Your task to perform on an android device: add a contact Image 0: 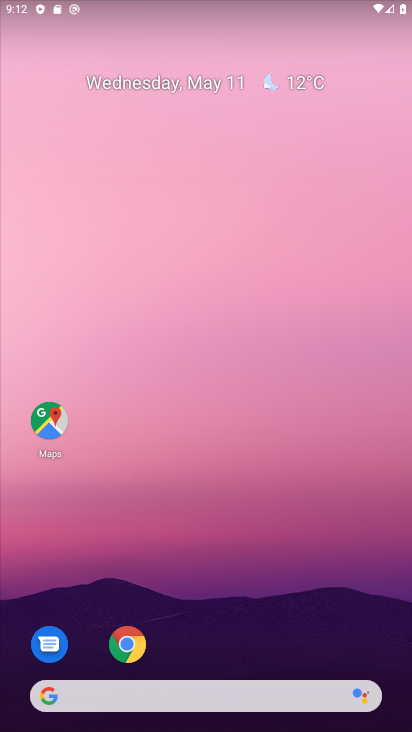
Step 0: drag from (234, 643) to (221, 298)
Your task to perform on an android device: add a contact Image 1: 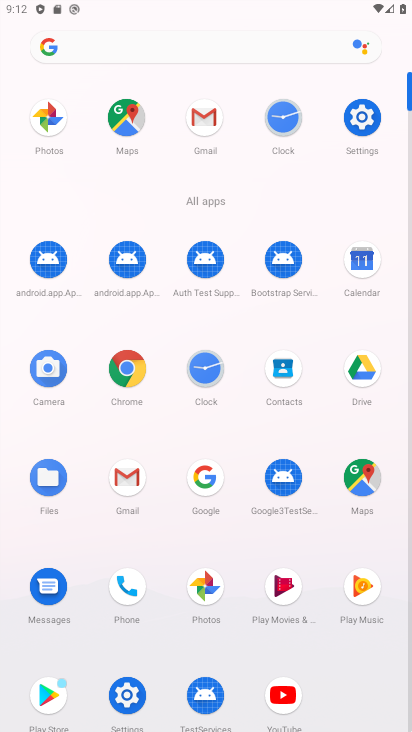
Step 1: click (349, 140)
Your task to perform on an android device: add a contact Image 2: 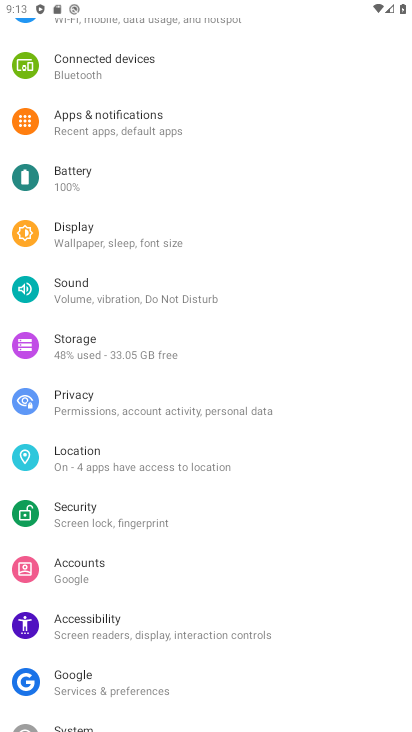
Step 2: press home button
Your task to perform on an android device: add a contact Image 3: 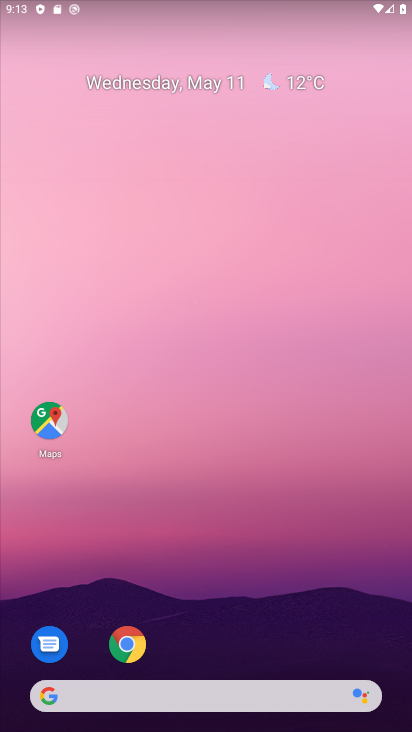
Step 3: drag from (302, 613) to (331, 168)
Your task to perform on an android device: add a contact Image 4: 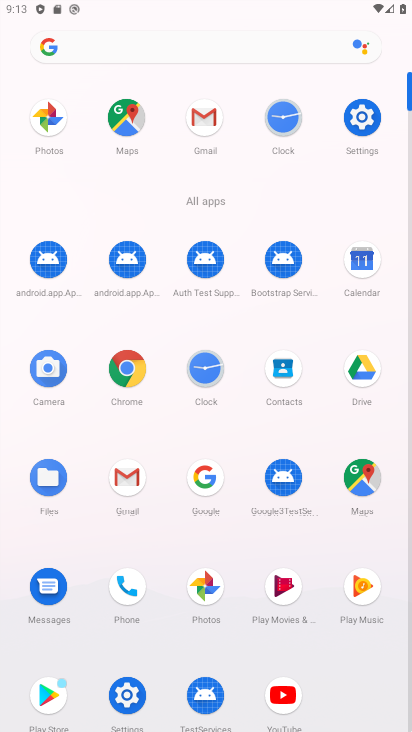
Step 4: click (369, 135)
Your task to perform on an android device: add a contact Image 5: 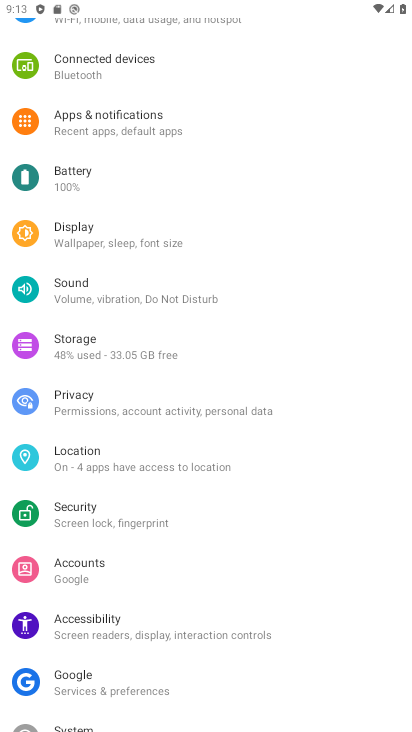
Step 5: press home button
Your task to perform on an android device: add a contact Image 6: 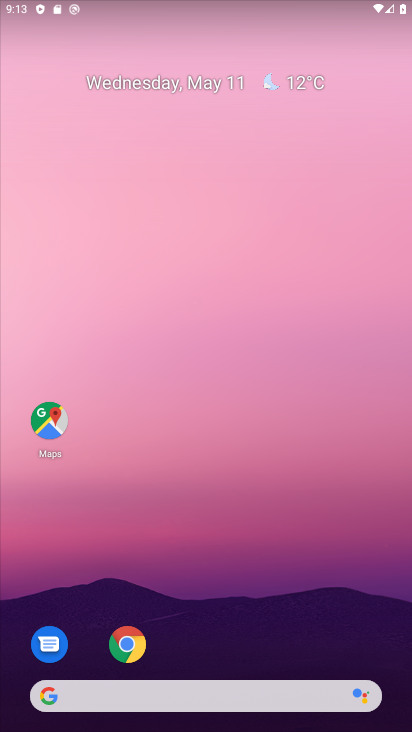
Step 6: drag from (338, 593) to (340, 0)
Your task to perform on an android device: add a contact Image 7: 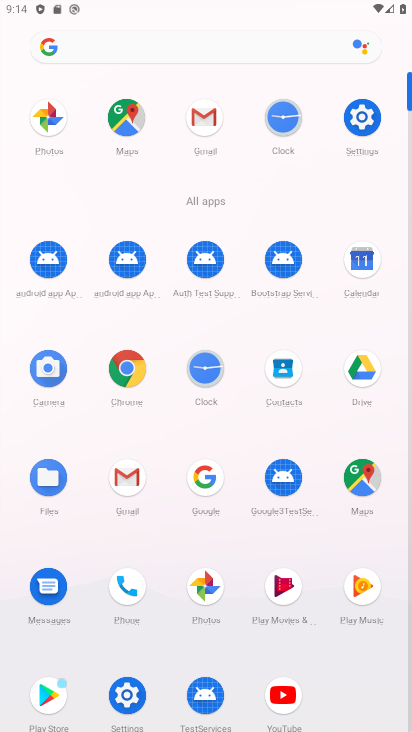
Step 7: click (272, 380)
Your task to perform on an android device: add a contact Image 8: 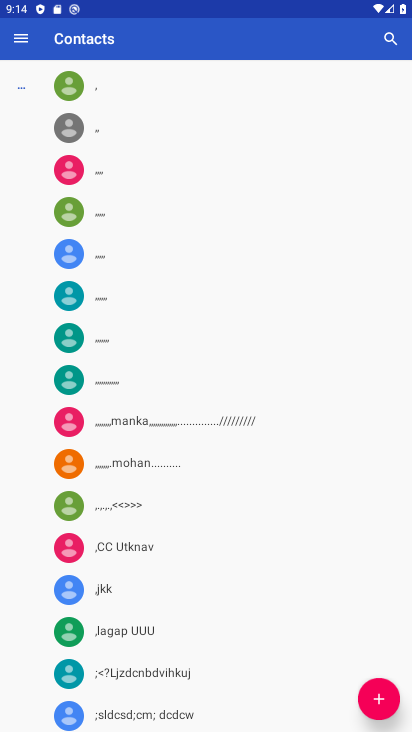
Step 8: click (378, 686)
Your task to perform on an android device: add a contact Image 9: 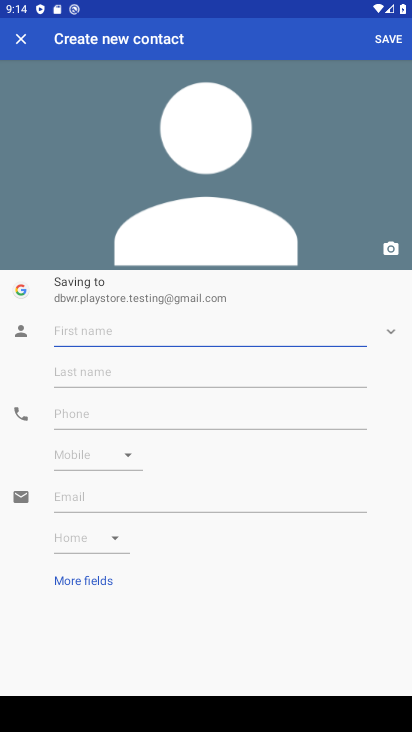
Step 9: click (196, 326)
Your task to perform on an android device: add a contact Image 10: 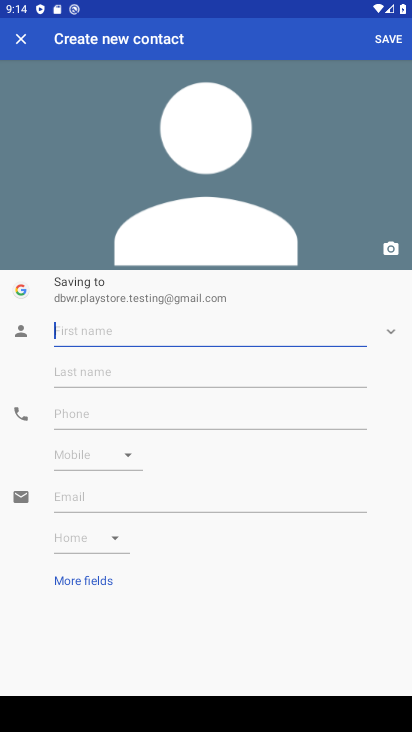
Step 10: type "aweqw"
Your task to perform on an android device: add a contact Image 11: 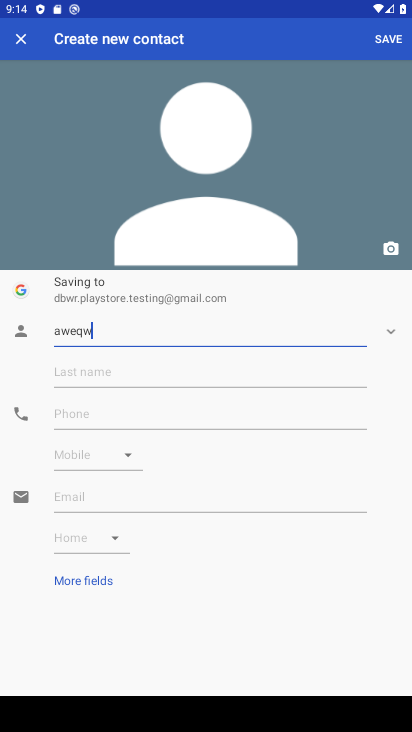
Step 11: click (263, 365)
Your task to perform on an android device: add a contact Image 12: 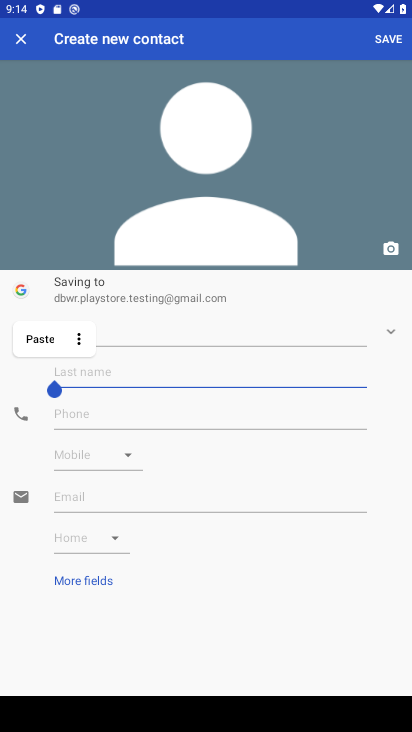
Step 12: click (227, 372)
Your task to perform on an android device: add a contact Image 13: 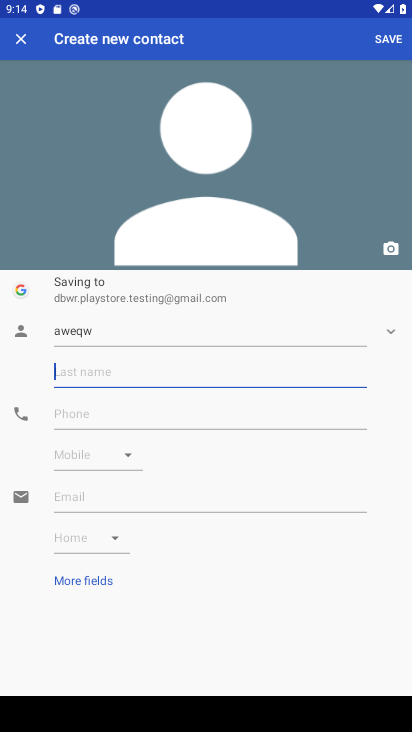
Step 13: type "sddcsd"
Your task to perform on an android device: add a contact Image 14: 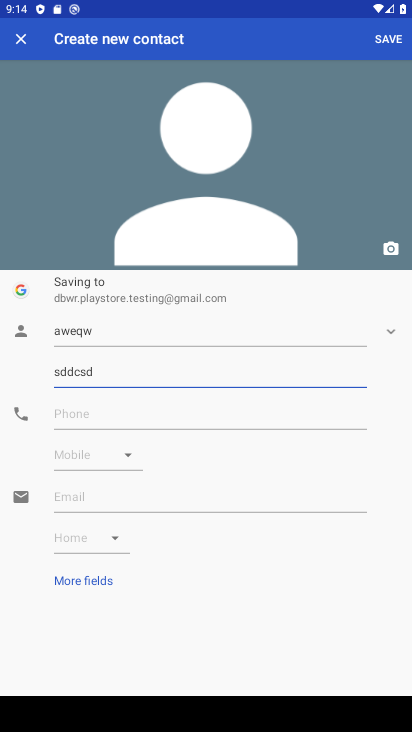
Step 14: click (321, 401)
Your task to perform on an android device: add a contact Image 15: 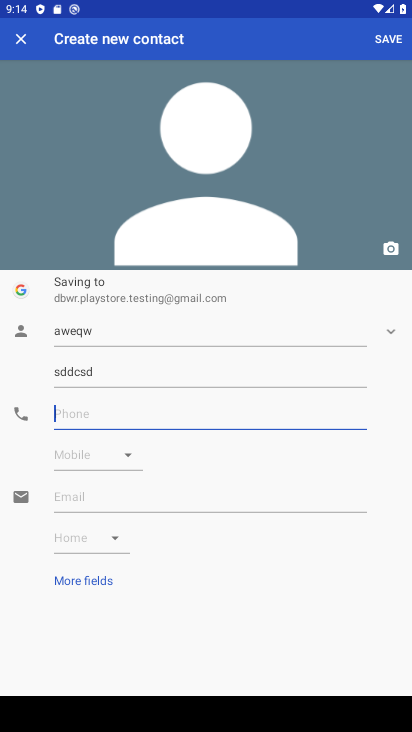
Step 15: type "scsdcs"
Your task to perform on an android device: add a contact Image 16: 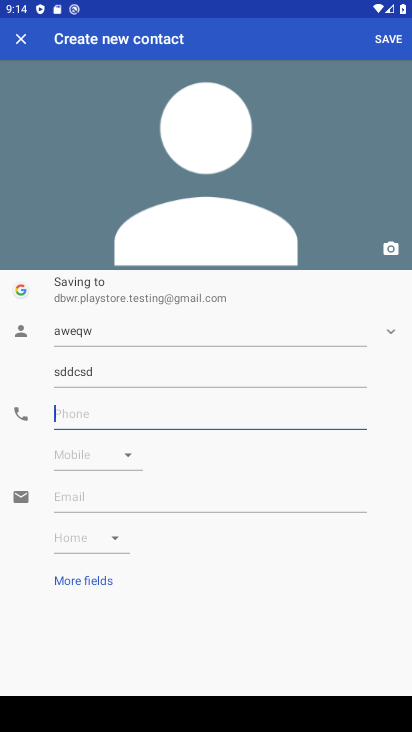
Step 16: type "23432432432"
Your task to perform on an android device: add a contact Image 17: 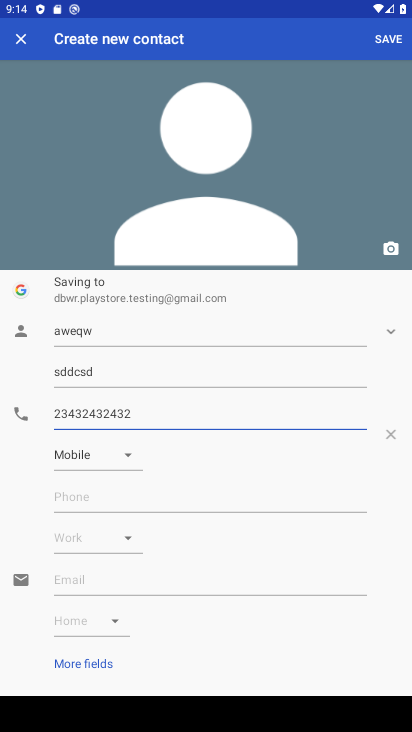
Step 17: click (387, 51)
Your task to perform on an android device: add a contact Image 18: 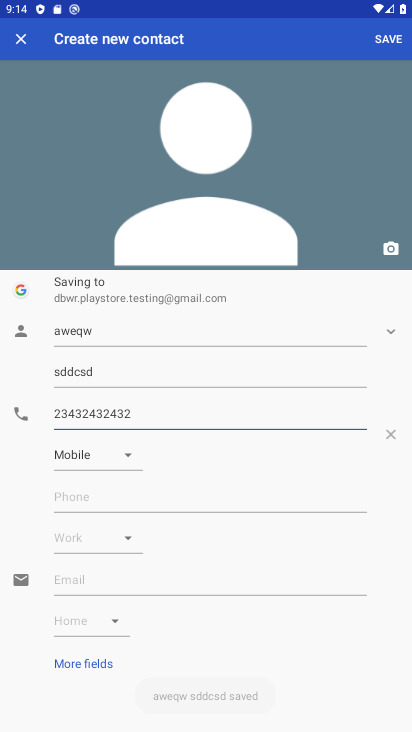
Step 18: task complete